Your task to perform on an android device: Is it going to rain this weekend? Image 0: 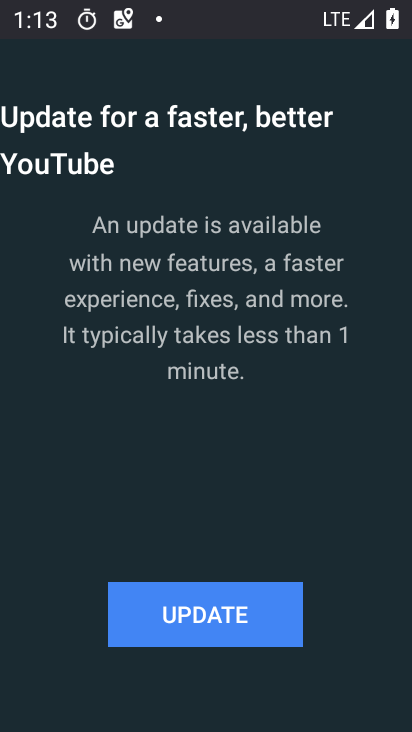
Step 0: press home button
Your task to perform on an android device: Is it going to rain this weekend? Image 1: 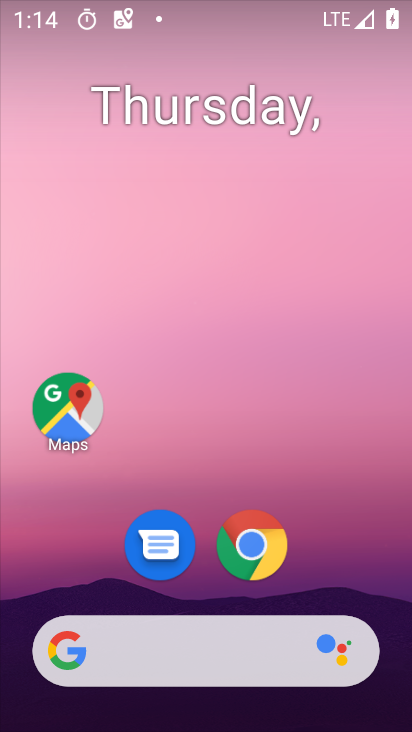
Step 1: drag from (237, 627) to (274, 0)
Your task to perform on an android device: Is it going to rain this weekend? Image 2: 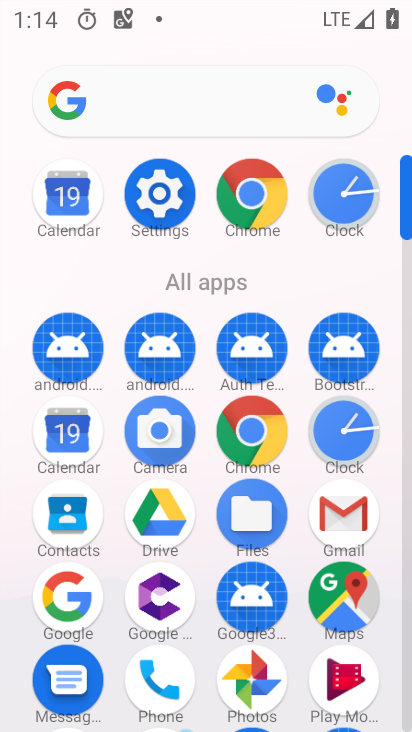
Step 2: press home button
Your task to perform on an android device: Is it going to rain this weekend? Image 3: 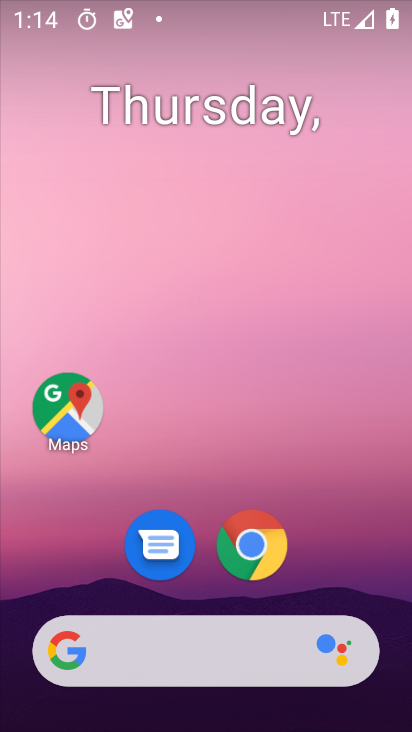
Step 3: drag from (7, 288) to (393, 322)
Your task to perform on an android device: Is it going to rain this weekend? Image 4: 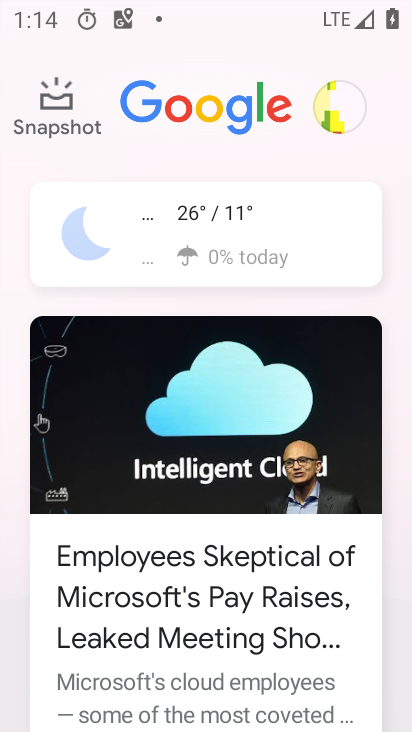
Step 4: click (249, 244)
Your task to perform on an android device: Is it going to rain this weekend? Image 5: 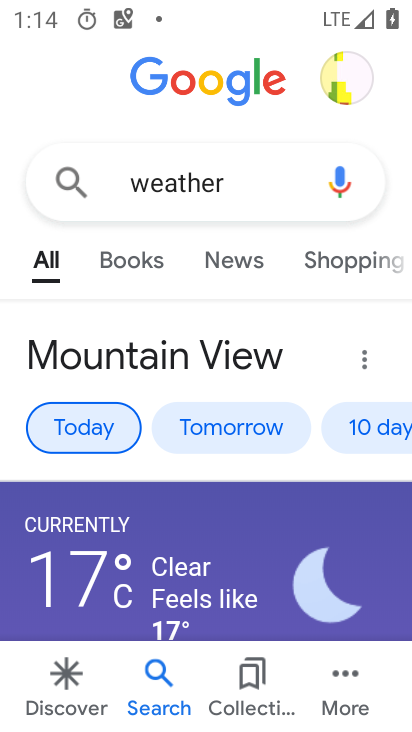
Step 5: click (397, 429)
Your task to perform on an android device: Is it going to rain this weekend? Image 6: 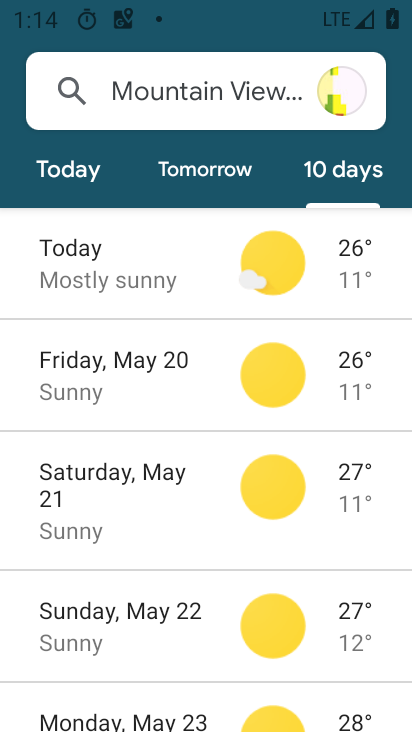
Step 6: task complete